Your task to perform on an android device: change timer sound Image 0: 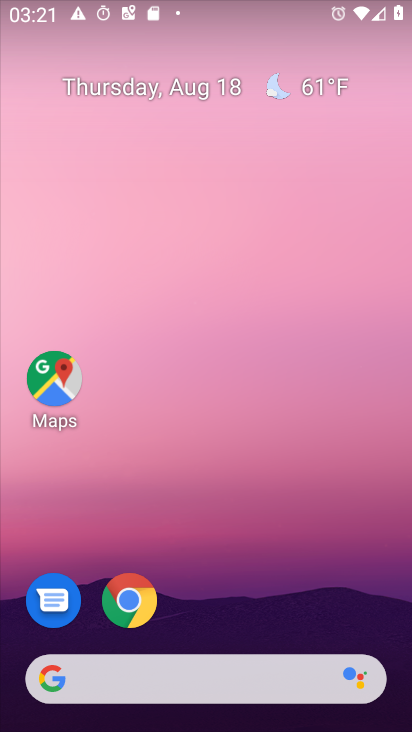
Step 0: drag from (223, 626) to (411, 222)
Your task to perform on an android device: change timer sound Image 1: 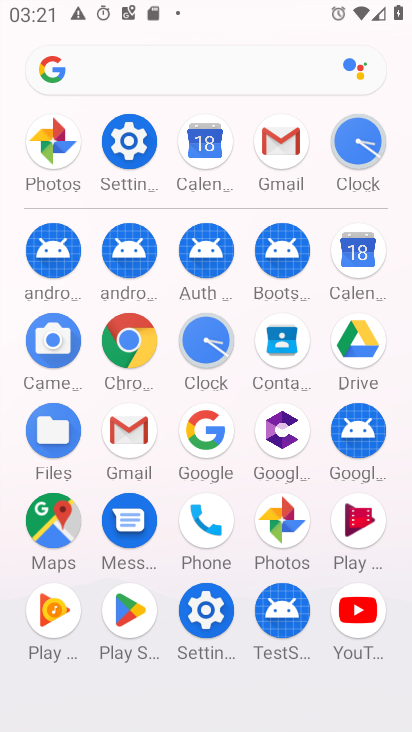
Step 1: click (193, 354)
Your task to perform on an android device: change timer sound Image 2: 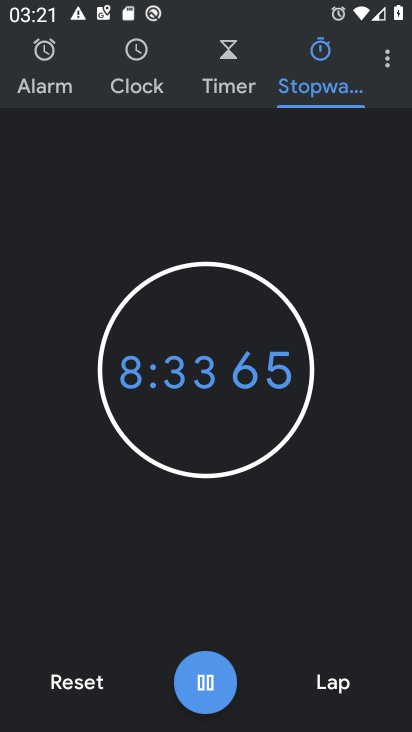
Step 2: click (388, 55)
Your task to perform on an android device: change timer sound Image 3: 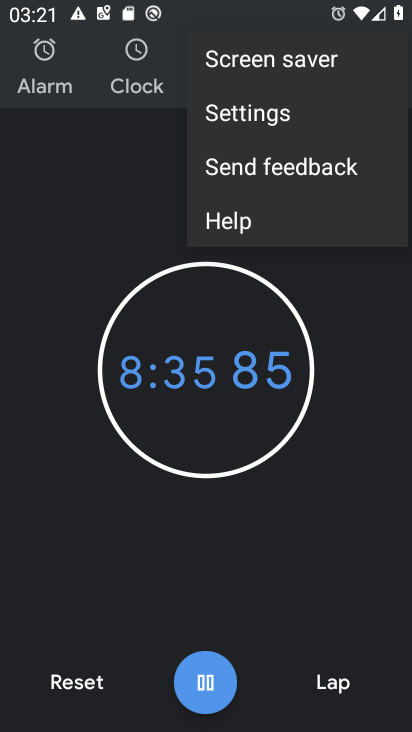
Step 3: click (264, 107)
Your task to perform on an android device: change timer sound Image 4: 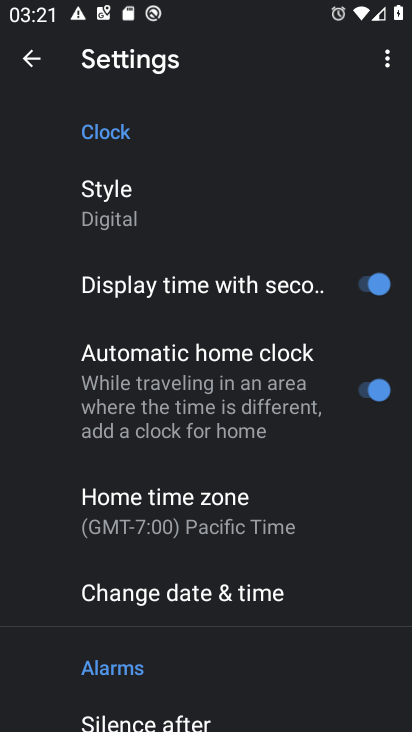
Step 4: drag from (322, 625) to (271, 107)
Your task to perform on an android device: change timer sound Image 5: 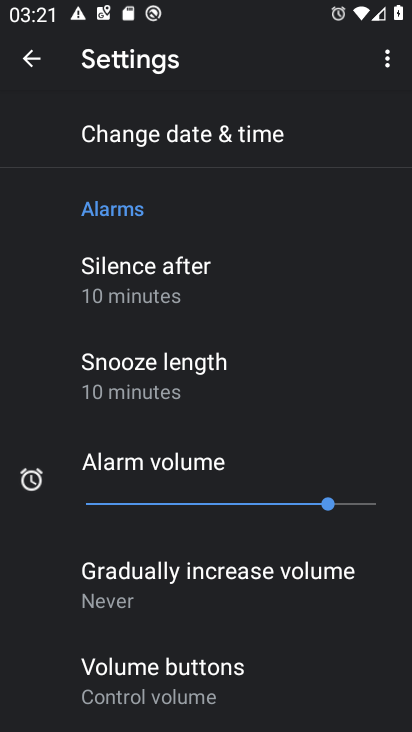
Step 5: drag from (324, 650) to (294, 200)
Your task to perform on an android device: change timer sound Image 6: 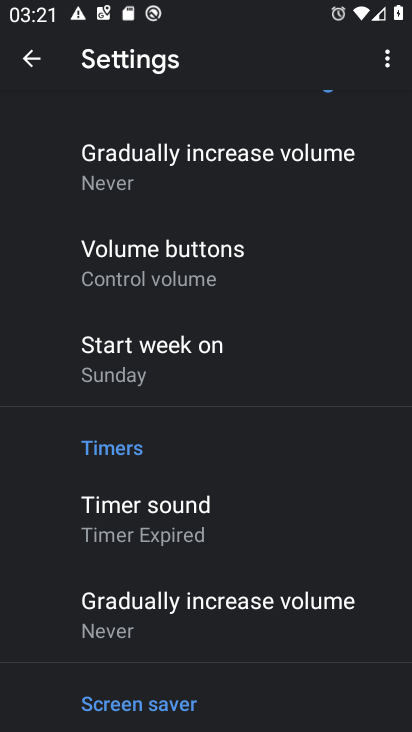
Step 6: click (150, 508)
Your task to perform on an android device: change timer sound Image 7: 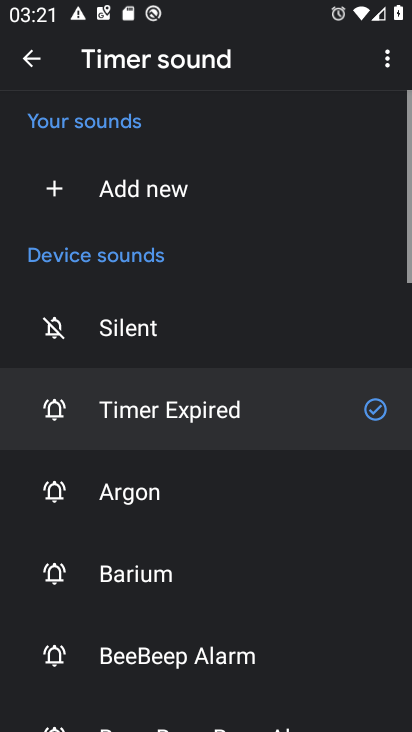
Step 7: click (112, 492)
Your task to perform on an android device: change timer sound Image 8: 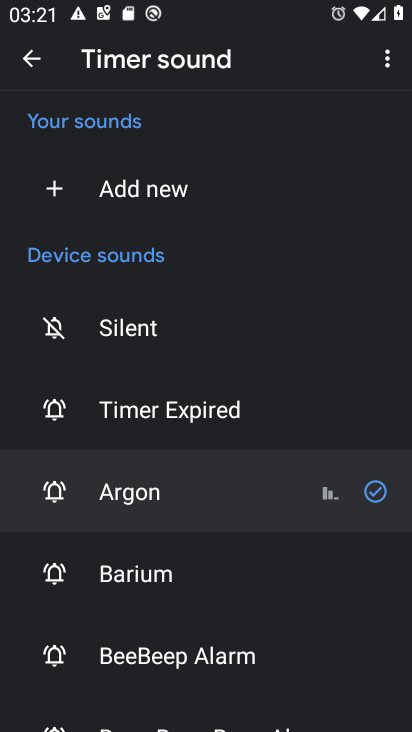
Step 8: task complete